Your task to perform on an android device: Clear all items from cart on newegg.com. Add lg ultragear to the cart on newegg.com Image 0: 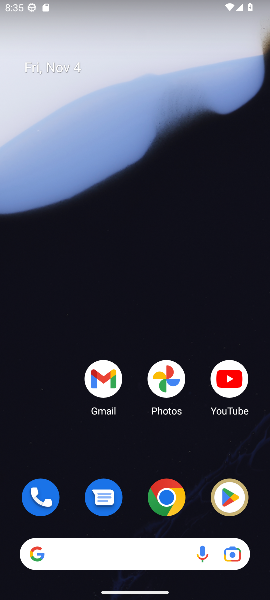
Step 0: click (166, 502)
Your task to perform on an android device: Clear all items from cart on newegg.com. Add lg ultragear to the cart on newegg.com Image 1: 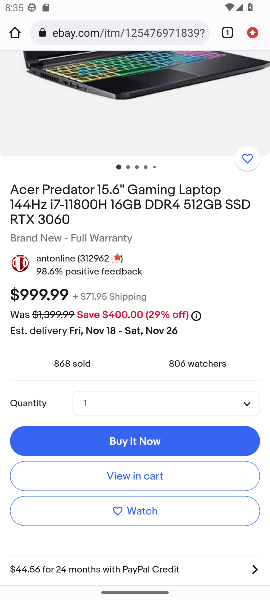
Step 1: click (121, 31)
Your task to perform on an android device: Clear all items from cart on newegg.com. Add lg ultragear to the cart on newegg.com Image 2: 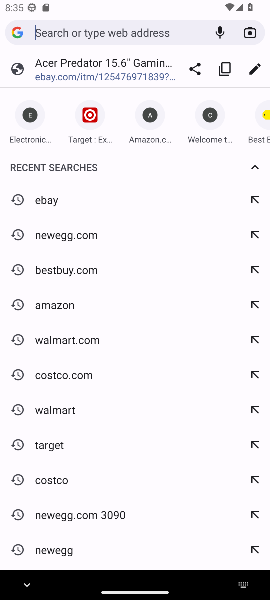
Step 2: click (60, 236)
Your task to perform on an android device: Clear all items from cart on newegg.com. Add lg ultragear to the cart on newegg.com Image 3: 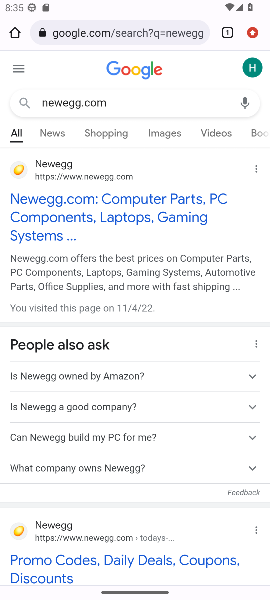
Step 3: click (66, 215)
Your task to perform on an android device: Clear all items from cart on newegg.com. Add lg ultragear to the cart on newegg.com Image 4: 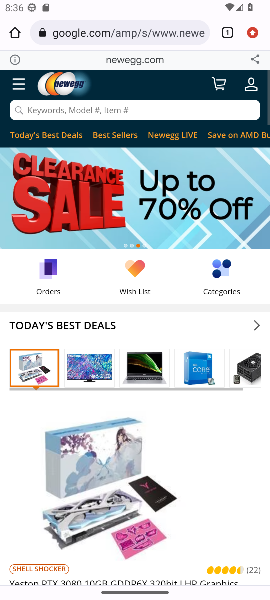
Step 4: click (226, 87)
Your task to perform on an android device: Clear all items from cart on newegg.com. Add lg ultragear to the cart on newegg.com Image 5: 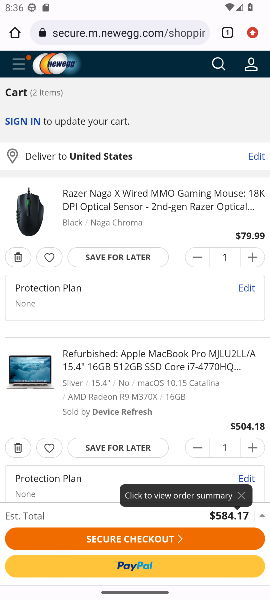
Step 5: click (16, 450)
Your task to perform on an android device: Clear all items from cart on newegg.com. Add lg ultragear to the cart on newegg.com Image 6: 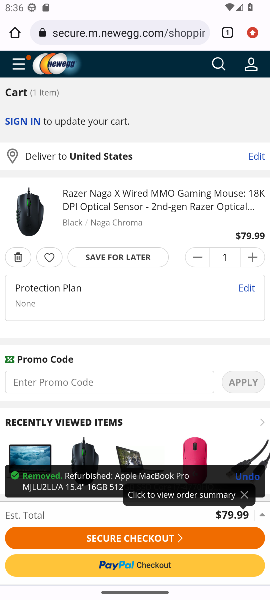
Step 6: click (20, 257)
Your task to perform on an android device: Clear all items from cart on newegg.com. Add lg ultragear to the cart on newegg.com Image 7: 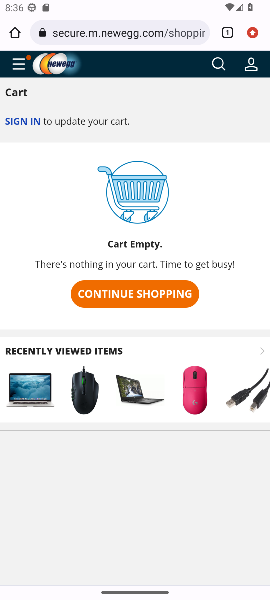
Step 7: click (146, 281)
Your task to perform on an android device: Clear all items from cart on newegg.com. Add lg ultragear to the cart on newegg.com Image 8: 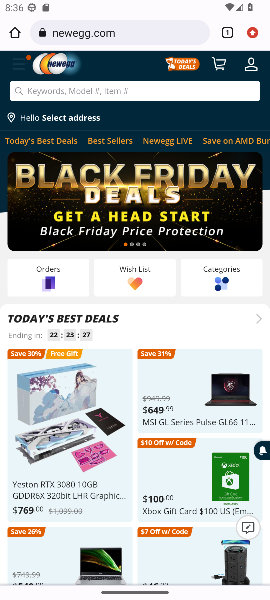
Step 8: click (96, 94)
Your task to perform on an android device: Clear all items from cart on newegg.com. Add lg ultragear to the cart on newegg.com Image 9: 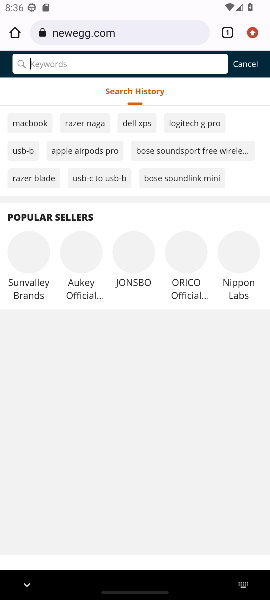
Step 9: type "lg ultragear"
Your task to perform on an android device: Clear all items from cart on newegg.com. Add lg ultragear to the cart on newegg.com Image 10: 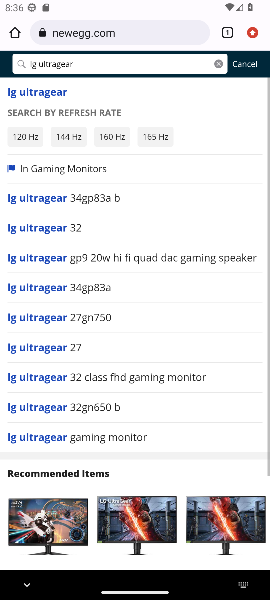
Step 10: click (54, 98)
Your task to perform on an android device: Clear all items from cart on newegg.com. Add lg ultragear to the cart on newegg.com Image 11: 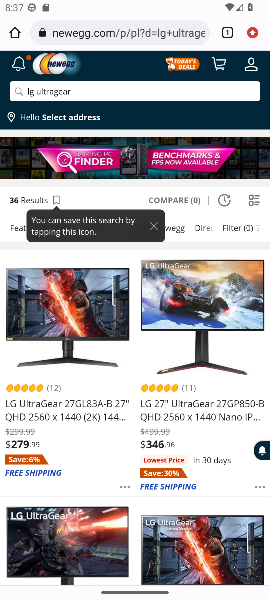
Step 11: click (58, 365)
Your task to perform on an android device: Clear all items from cart on newegg.com. Add lg ultragear to the cart on newegg.com Image 12: 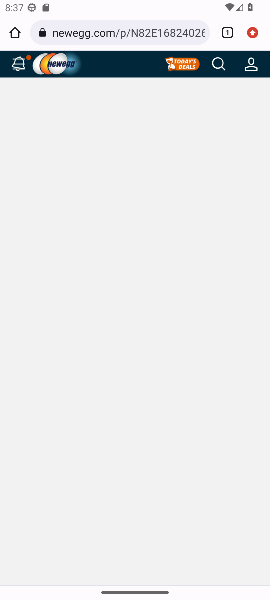
Step 12: click (102, 566)
Your task to perform on an android device: Clear all items from cart on newegg.com. Add lg ultragear to the cart on newegg.com Image 13: 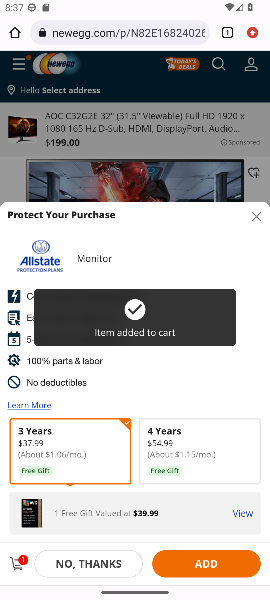
Step 13: task complete